Your task to perform on an android device: Toggle the flashlight Image 0: 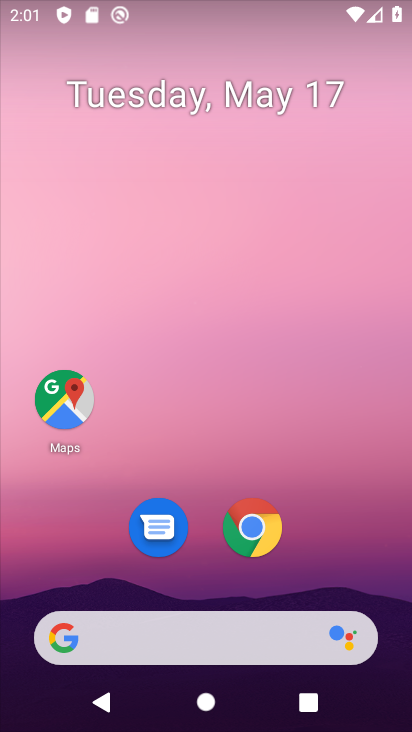
Step 0: drag from (316, 38) to (235, 579)
Your task to perform on an android device: Toggle the flashlight Image 1: 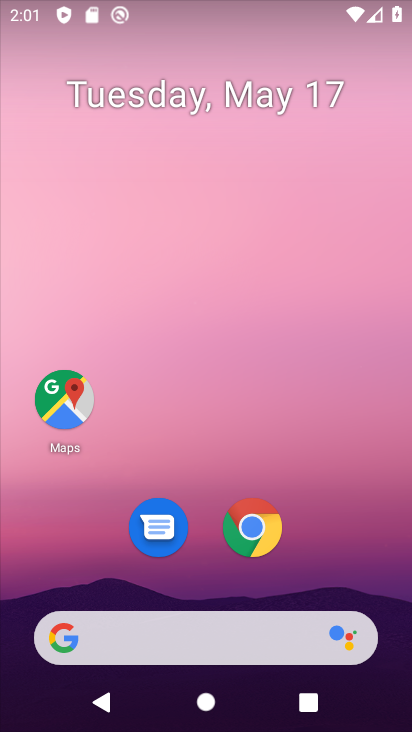
Step 1: task complete